Your task to perform on an android device: Toggle the flashlight Image 0: 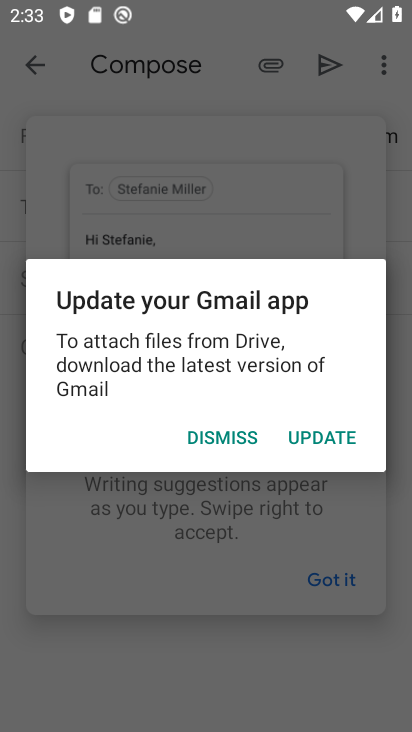
Step 0: press home button
Your task to perform on an android device: Toggle the flashlight Image 1: 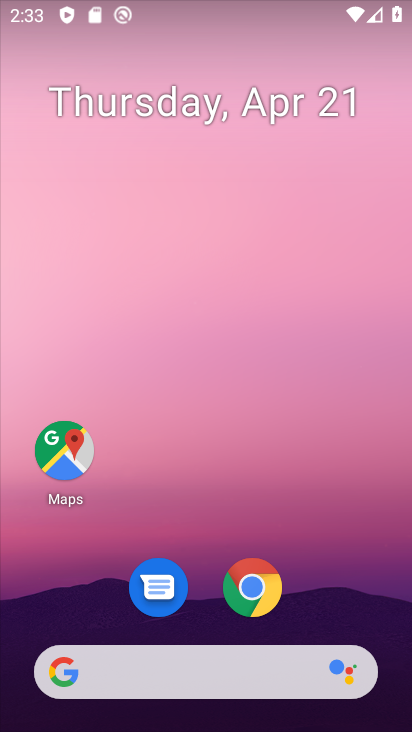
Step 1: task complete